Your task to perform on an android device: change timer sound Image 0: 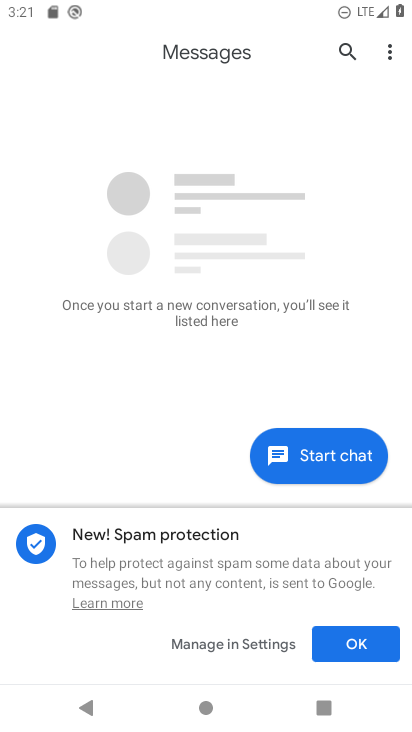
Step 0: press home button
Your task to perform on an android device: change timer sound Image 1: 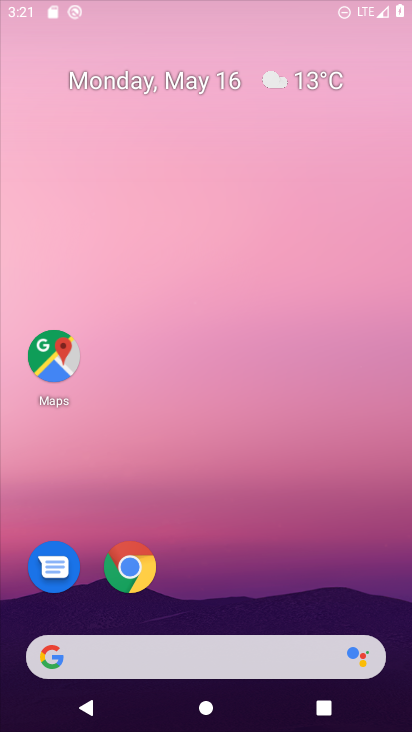
Step 1: drag from (320, 546) to (287, 60)
Your task to perform on an android device: change timer sound Image 2: 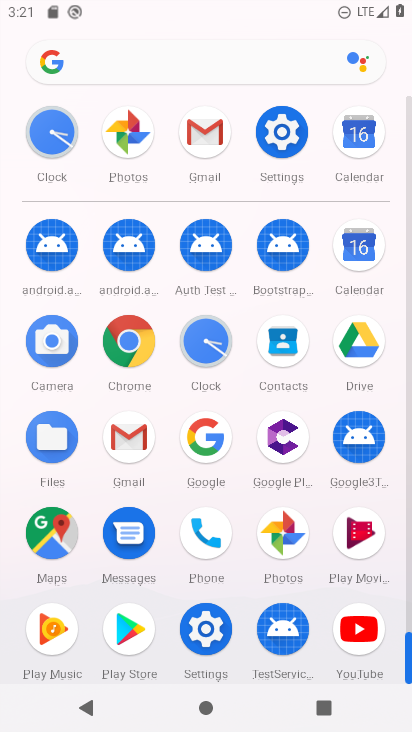
Step 2: click (64, 137)
Your task to perform on an android device: change timer sound Image 3: 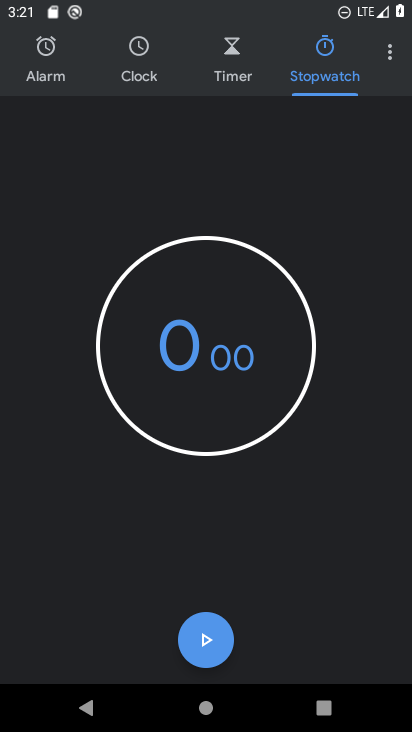
Step 3: click (387, 60)
Your task to perform on an android device: change timer sound Image 4: 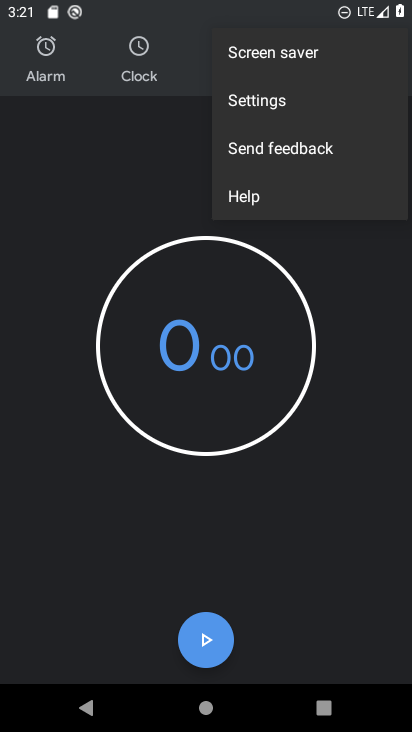
Step 4: click (244, 89)
Your task to perform on an android device: change timer sound Image 5: 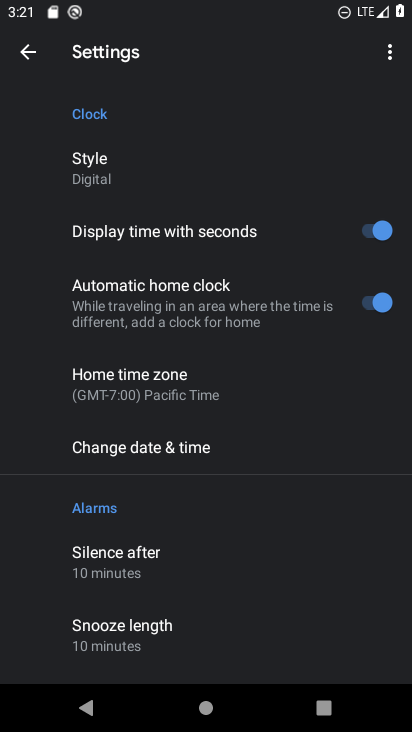
Step 5: drag from (235, 610) to (211, 345)
Your task to perform on an android device: change timer sound Image 6: 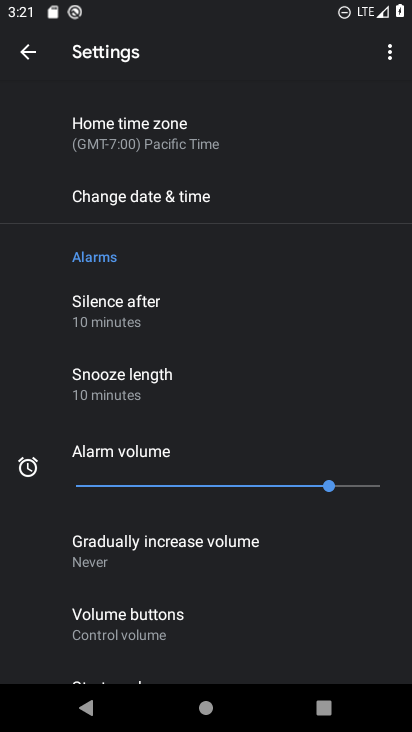
Step 6: drag from (232, 600) to (189, 247)
Your task to perform on an android device: change timer sound Image 7: 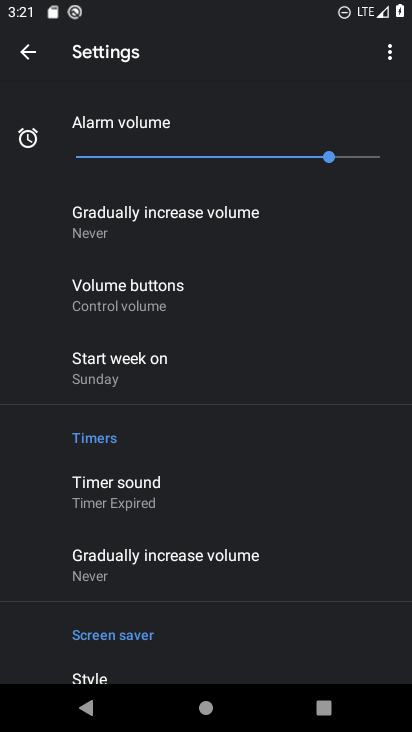
Step 7: drag from (197, 595) to (171, 409)
Your task to perform on an android device: change timer sound Image 8: 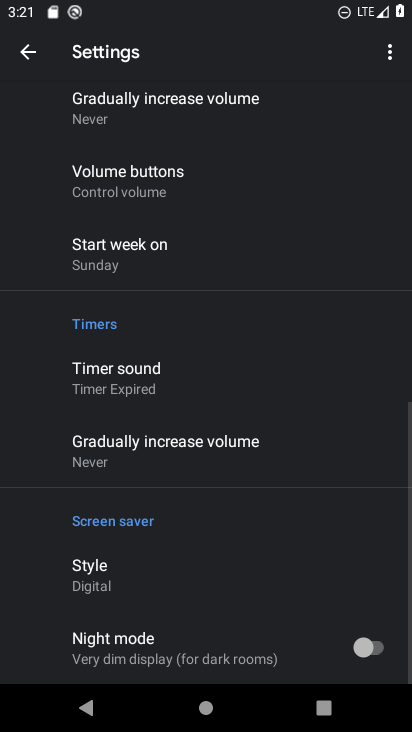
Step 8: click (162, 363)
Your task to perform on an android device: change timer sound Image 9: 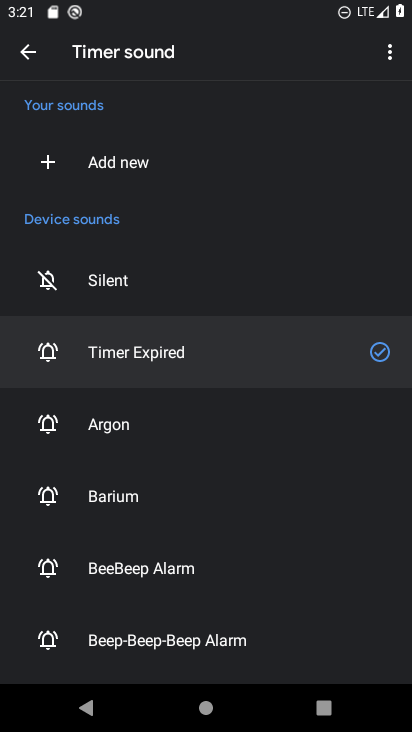
Step 9: click (207, 643)
Your task to perform on an android device: change timer sound Image 10: 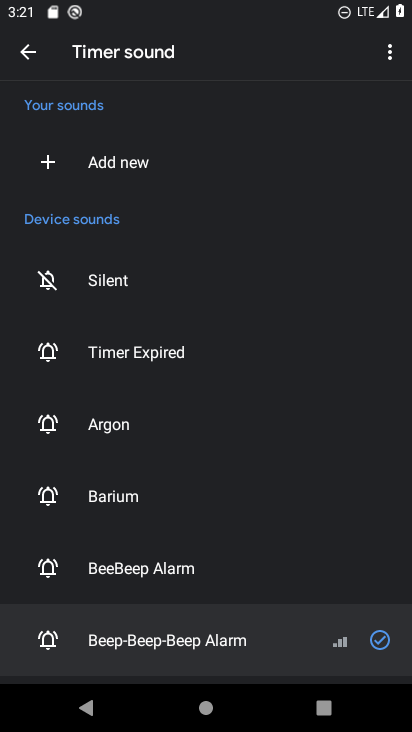
Step 10: click (29, 47)
Your task to perform on an android device: change timer sound Image 11: 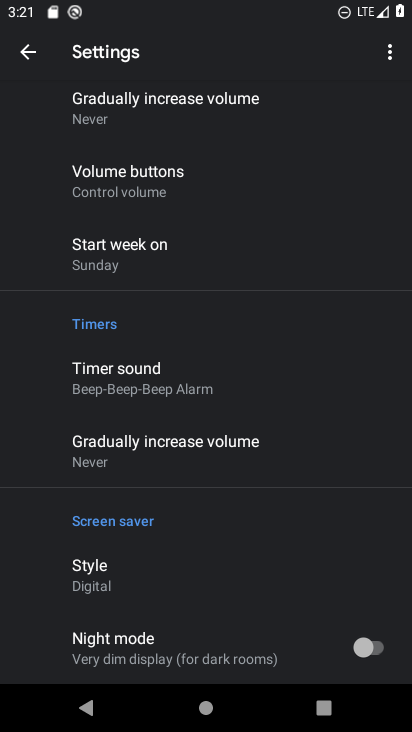
Step 11: task complete